Your task to perform on an android device: Open Google Maps and go to "Timeline" Image 0: 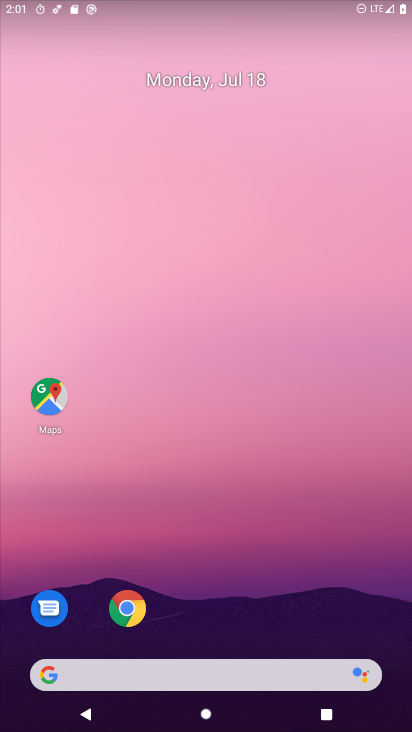
Step 0: drag from (232, 663) to (247, 287)
Your task to perform on an android device: Open Google Maps and go to "Timeline" Image 1: 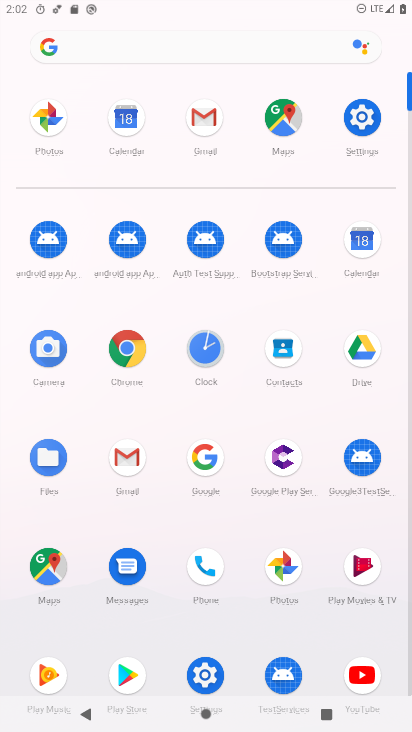
Step 1: click (46, 559)
Your task to perform on an android device: Open Google Maps and go to "Timeline" Image 2: 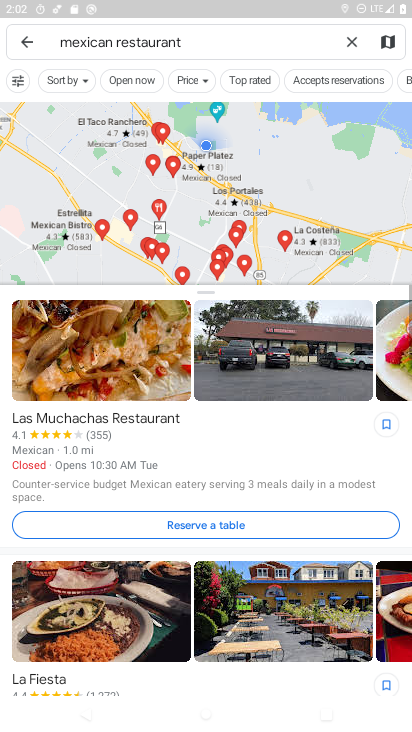
Step 2: click (30, 39)
Your task to perform on an android device: Open Google Maps and go to "Timeline" Image 3: 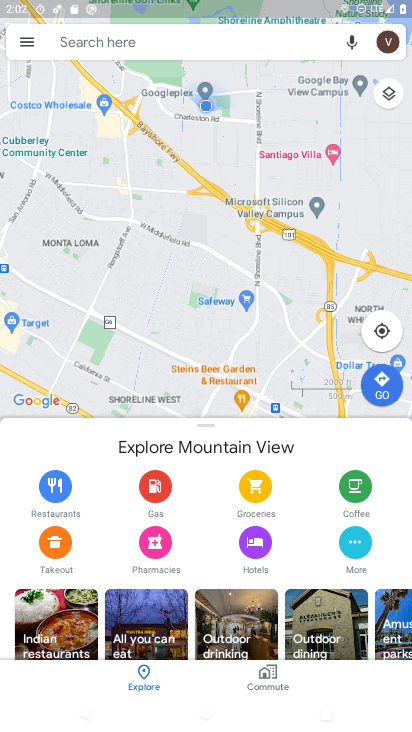
Step 3: click (20, 39)
Your task to perform on an android device: Open Google Maps and go to "Timeline" Image 4: 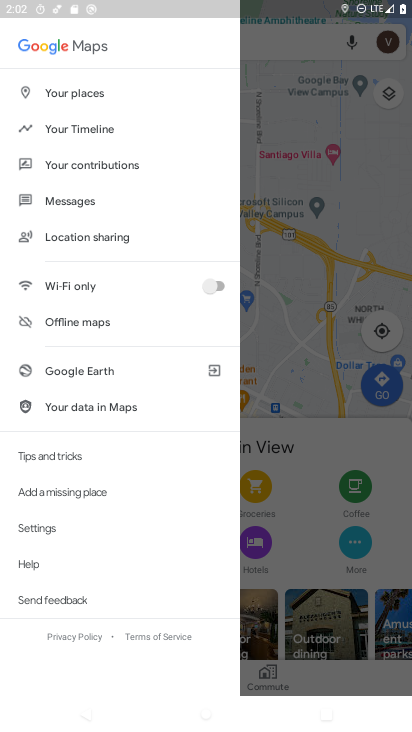
Step 4: click (71, 133)
Your task to perform on an android device: Open Google Maps and go to "Timeline" Image 5: 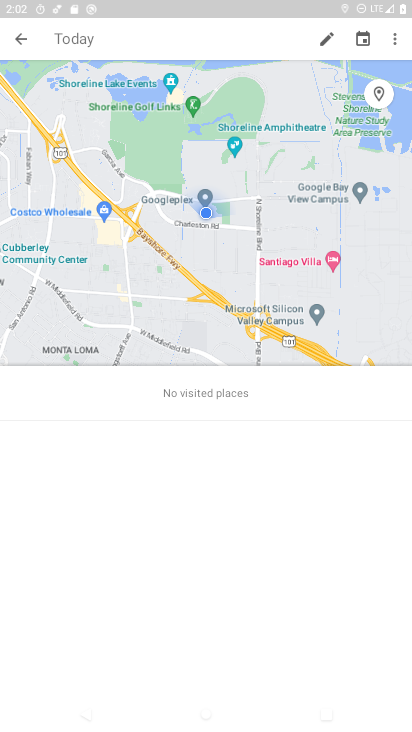
Step 5: task complete